Your task to perform on an android device: add a contact in the contacts app Image 0: 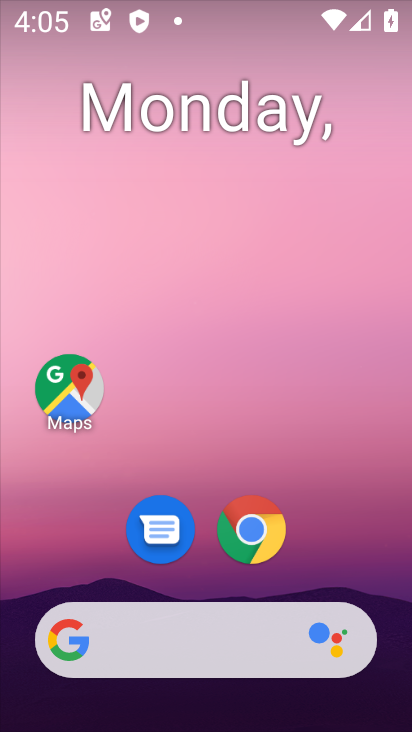
Step 0: drag from (207, 721) to (221, 260)
Your task to perform on an android device: add a contact in the contacts app Image 1: 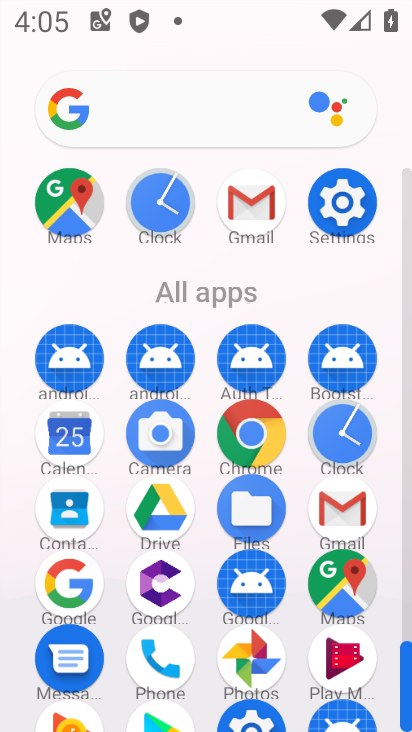
Step 1: click (73, 515)
Your task to perform on an android device: add a contact in the contacts app Image 2: 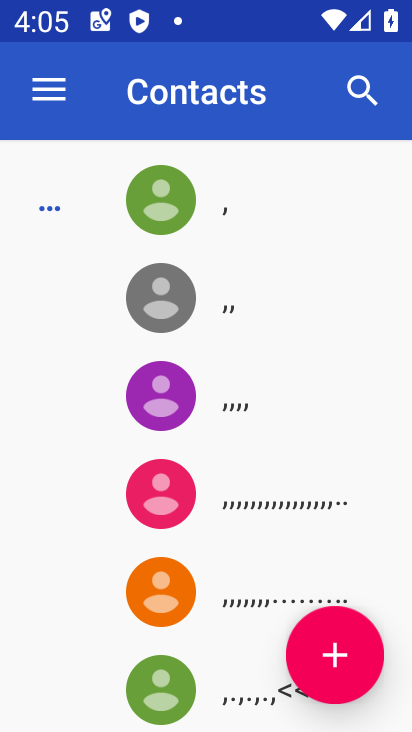
Step 2: click (333, 649)
Your task to perform on an android device: add a contact in the contacts app Image 3: 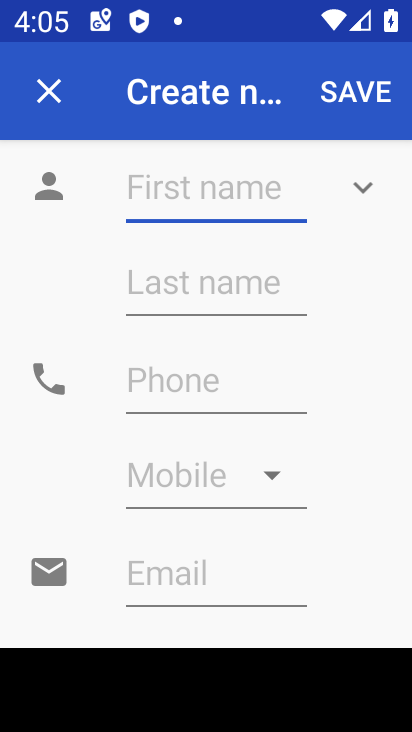
Step 3: type "rocky"
Your task to perform on an android device: add a contact in the contacts app Image 4: 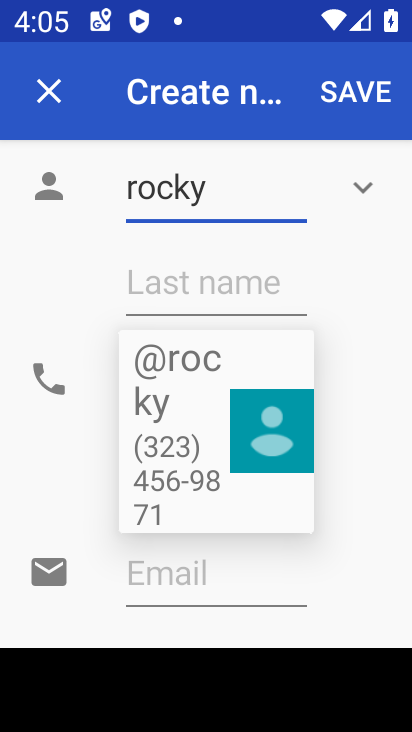
Step 4: type ""
Your task to perform on an android device: add a contact in the contacts app Image 5: 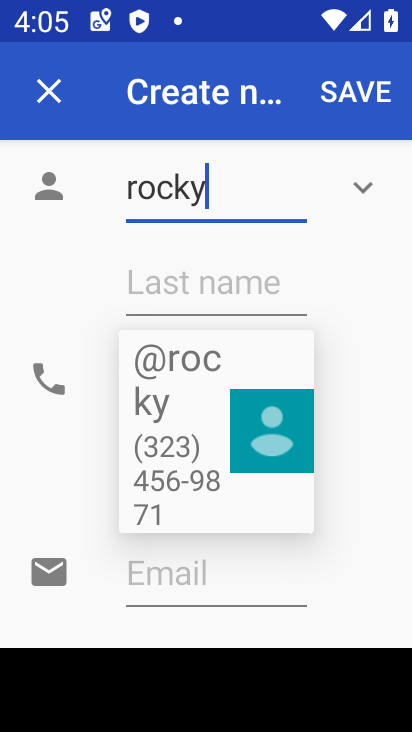
Step 5: type "bhai"
Your task to perform on an android device: add a contact in the contacts app Image 6: 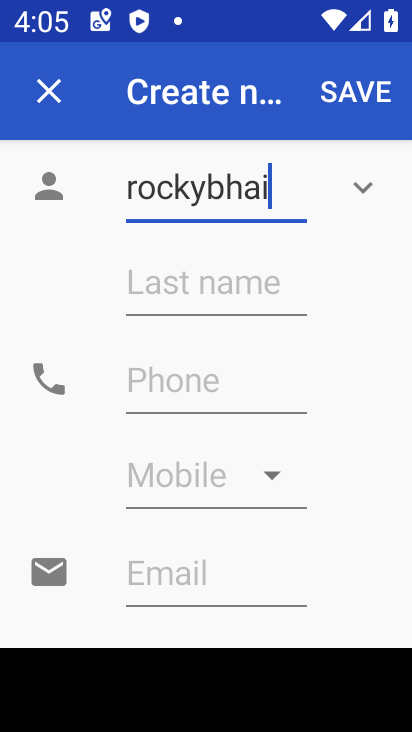
Step 6: click (167, 386)
Your task to perform on an android device: add a contact in the contacts app Image 7: 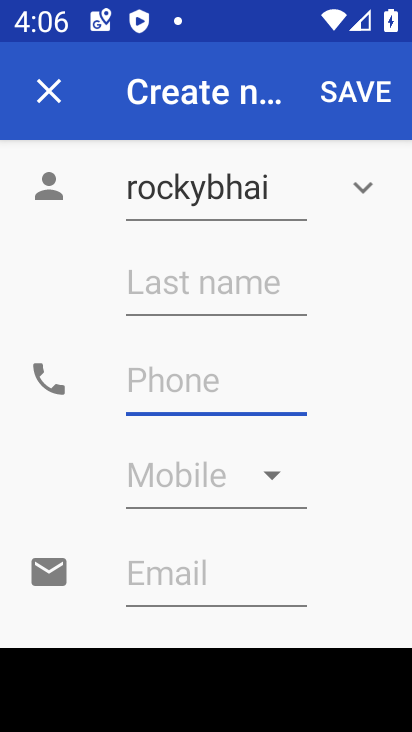
Step 7: type "0090987654"
Your task to perform on an android device: add a contact in the contacts app Image 8: 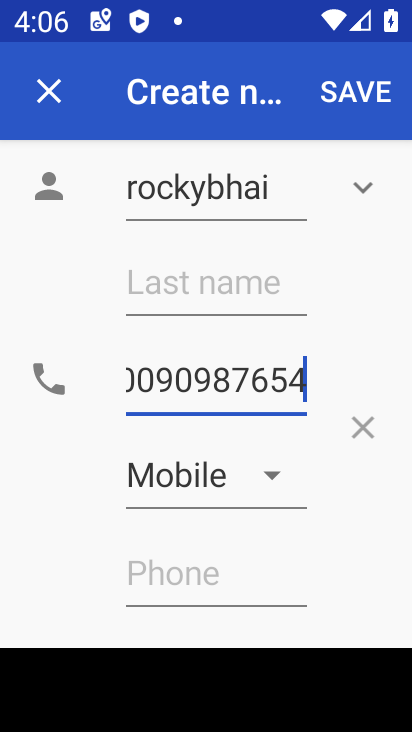
Step 8: click (367, 85)
Your task to perform on an android device: add a contact in the contacts app Image 9: 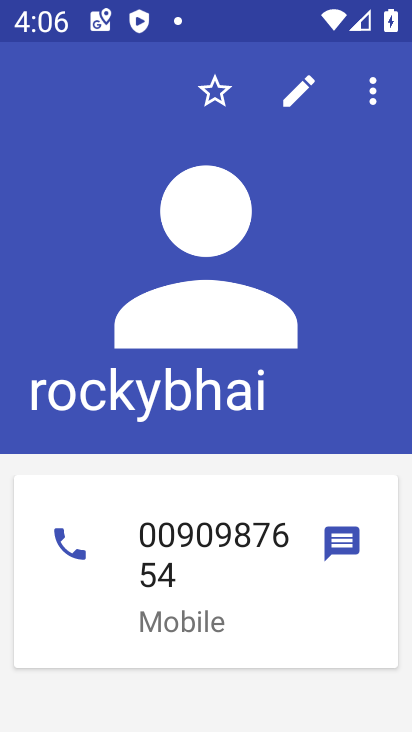
Step 9: task complete